Your task to perform on an android device: turn off notifications in google photos Image 0: 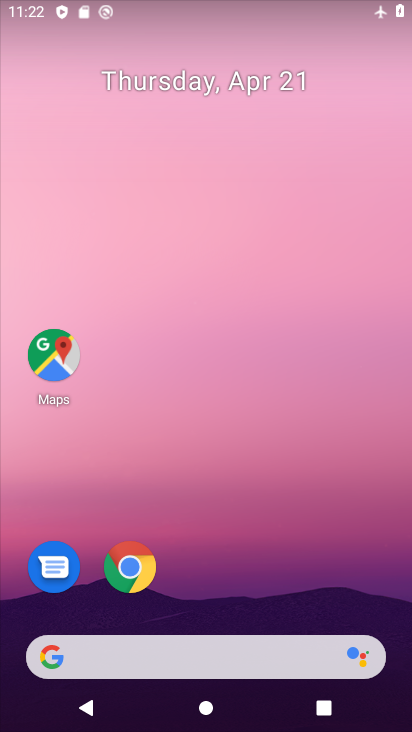
Step 0: drag from (393, 599) to (377, 147)
Your task to perform on an android device: turn off notifications in google photos Image 1: 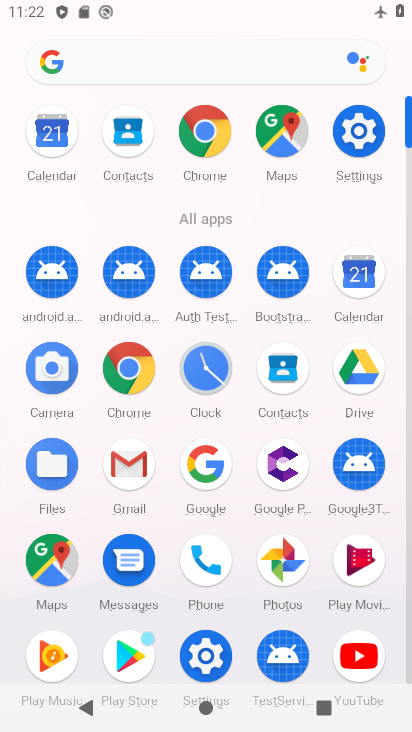
Step 1: click (286, 559)
Your task to perform on an android device: turn off notifications in google photos Image 2: 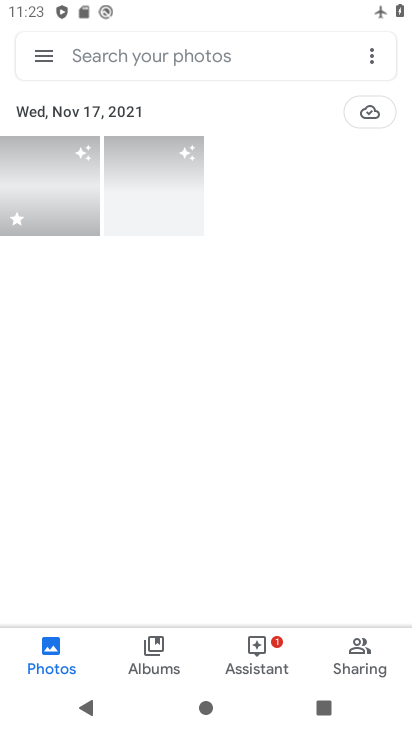
Step 2: click (46, 63)
Your task to perform on an android device: turn off notifications in google photos Image 3: 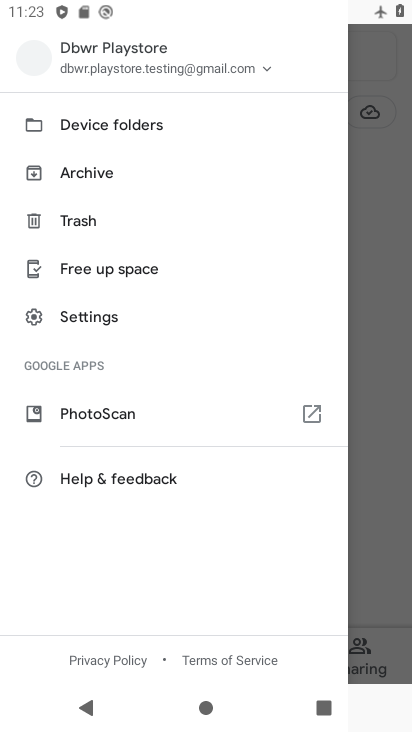
Step 3: click (131, 324)
Your task to perform on an android device: turn off notifications in google photos Image 4: 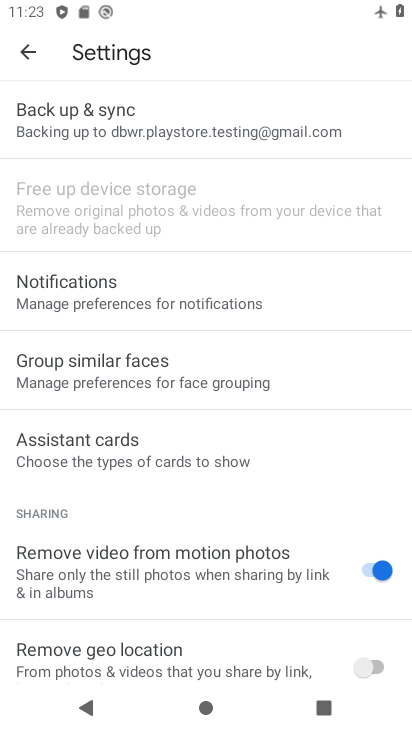
Step 4: click (135, 298)
Your task to perform on an android device: turn off notifications in google photos Image 5: 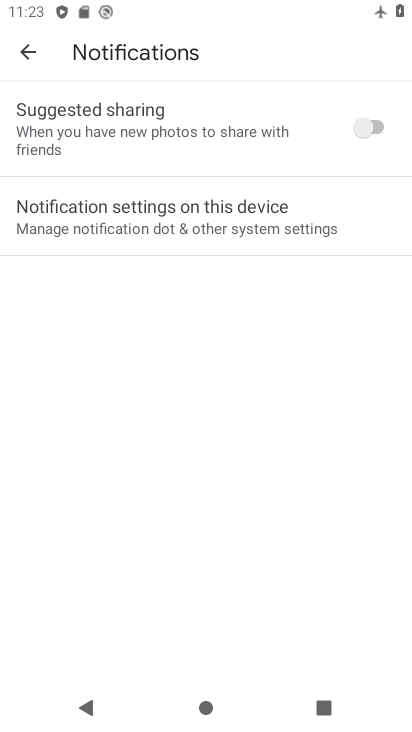
Step 5: click (157, 220)
Your task to perform on an android device: turn off notifications in google photos Image 6: 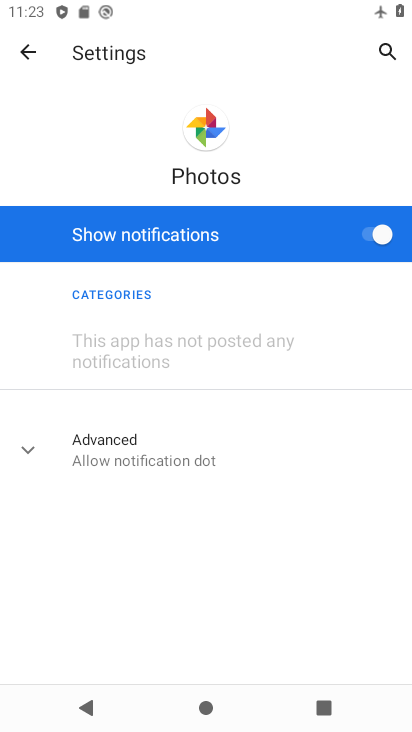
Step 6: click (370, 244)
Your task to perform on an android device: turn off notifications in google photos Image 7: 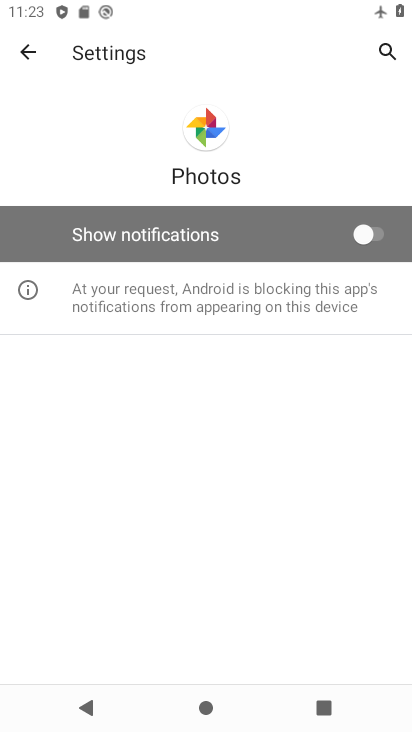
Step 7: task complete